Your task to perform on an android device: open app "PlayWell" (install if not already installed) Image 0: 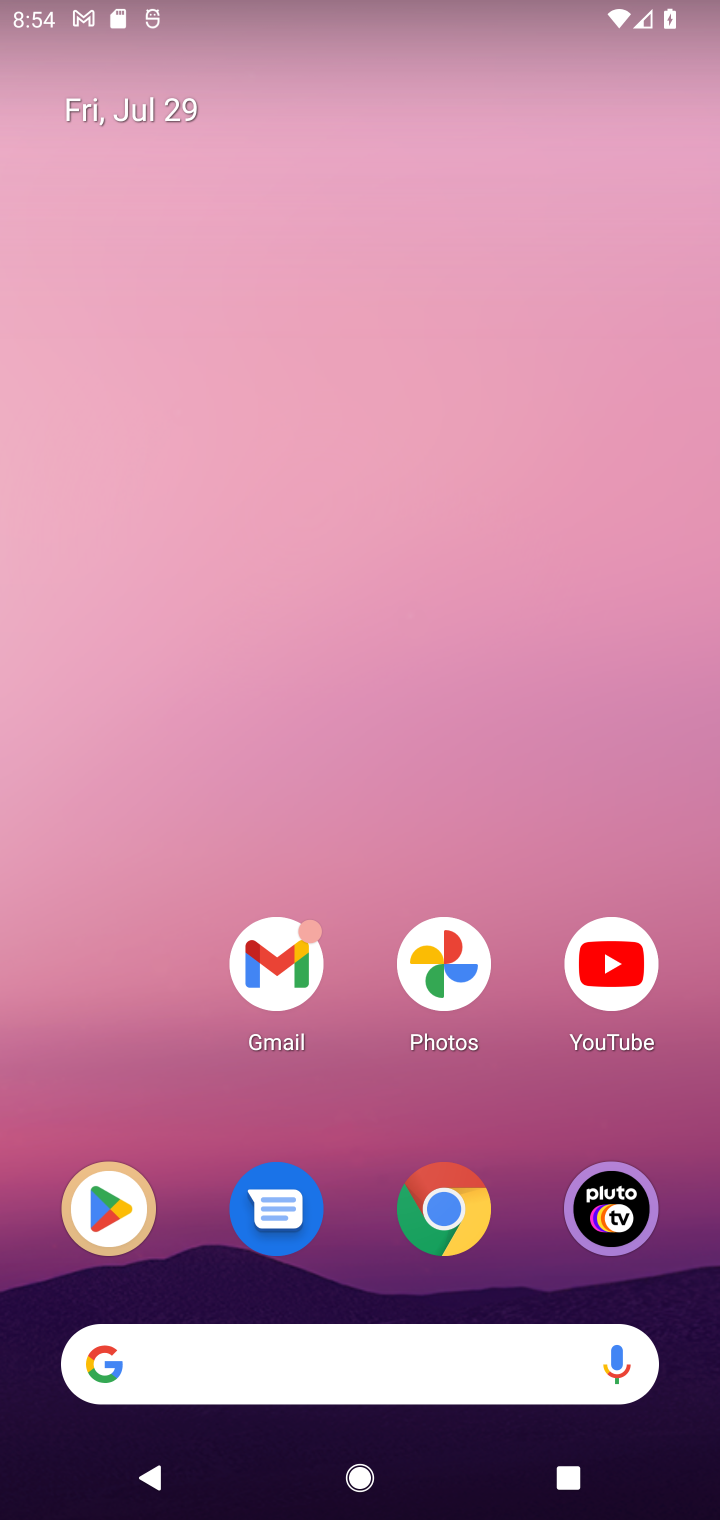
Step 0: press home button
Your task to perform on an android device: open app "PlayWell" (install if not already installed) Image 1: 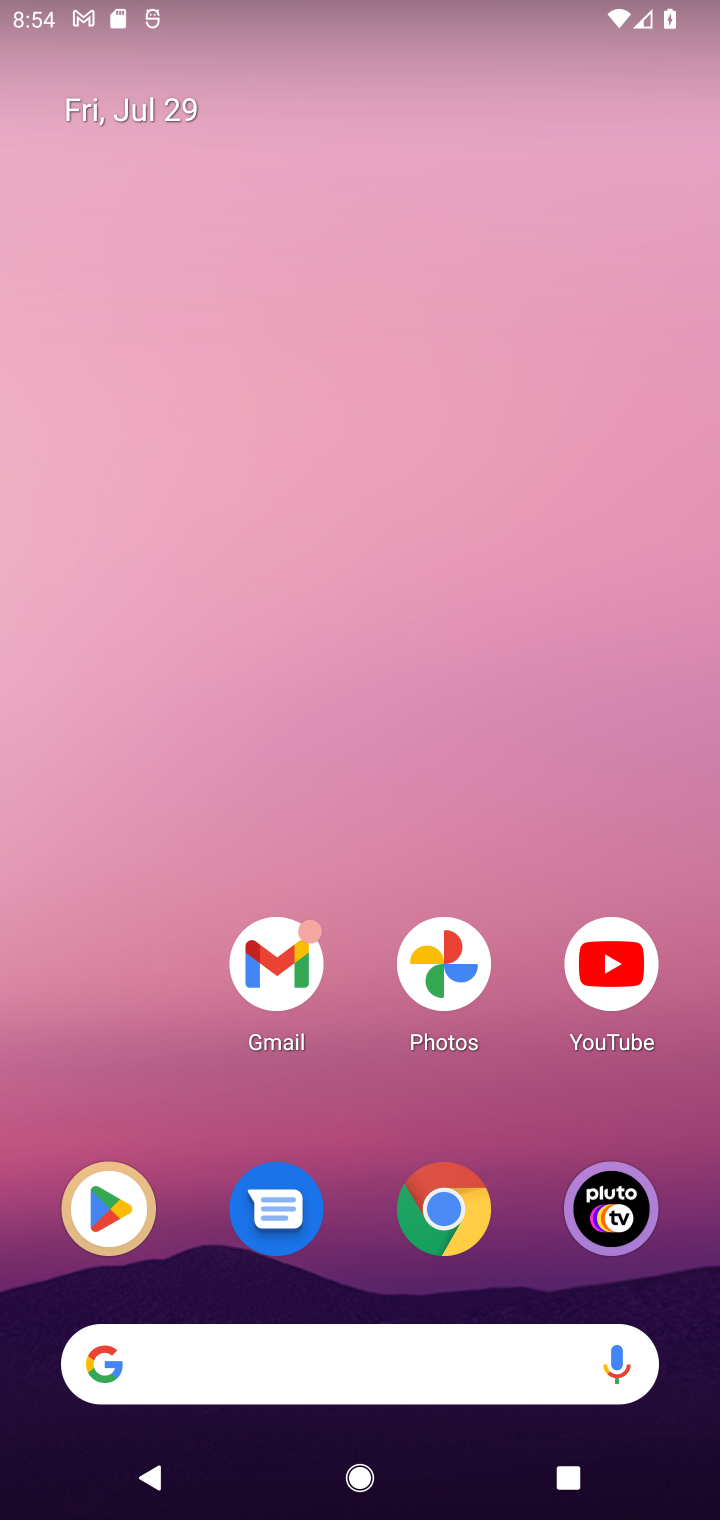
Step 1: drag from (255, 1370) to (359, 72)
Your task to perform on an android device: open app "PlayWell" (install if not already installed) Image 2: 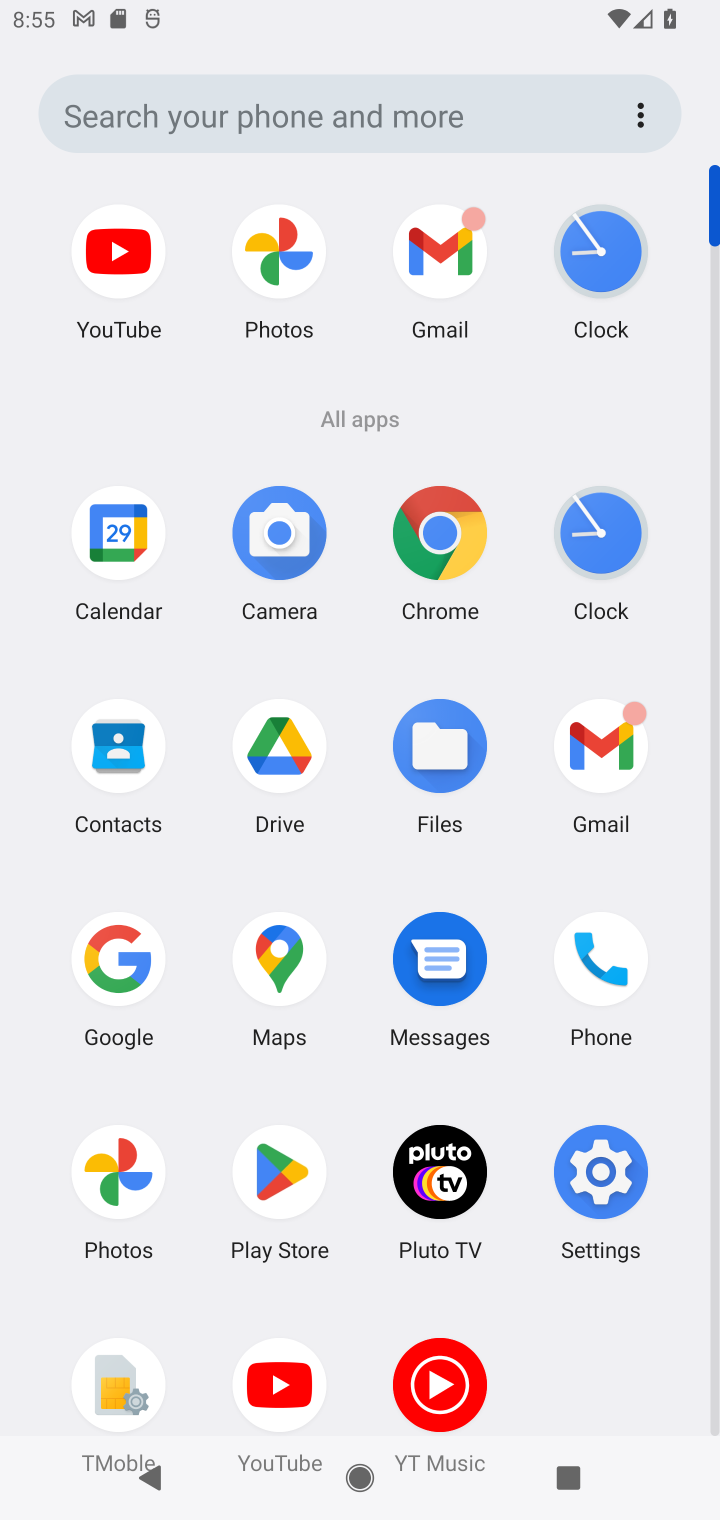
Step 2: click (286, 1174)
Your task to perform on an android device: open app "PlayWell" (install if not already installed) Image 3: 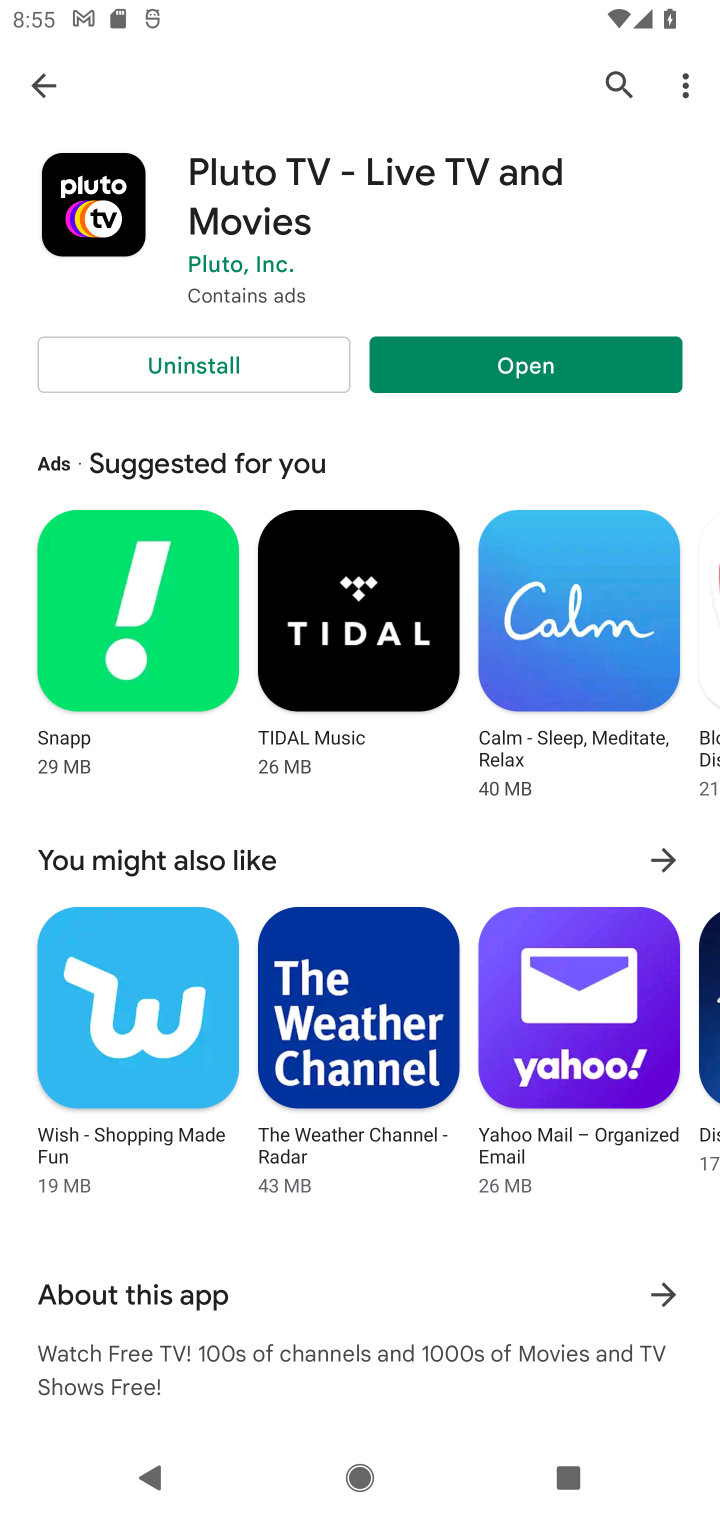
Step 3: click (617, 83)
Your task to perform on an android device: open app "PlayWell" (install if not already installed) Image 4: 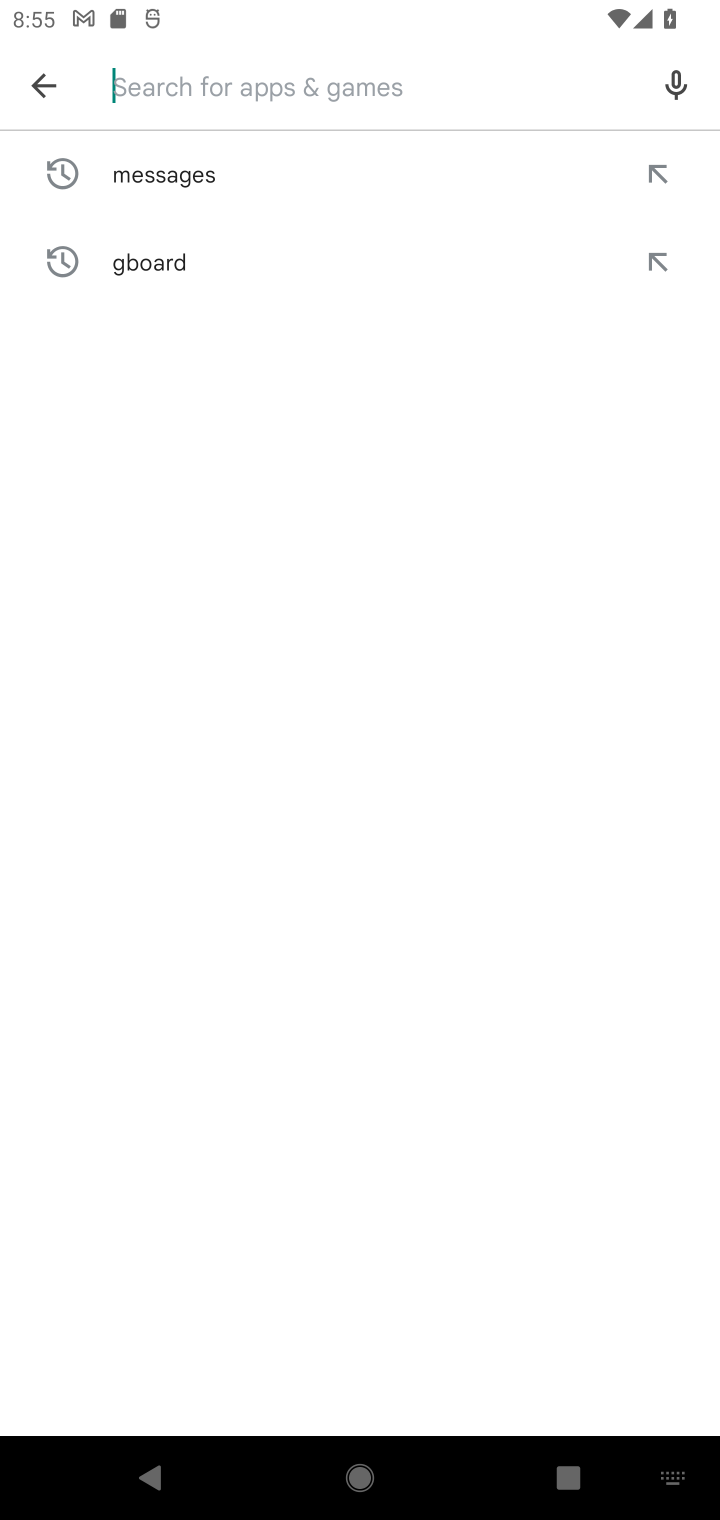
Step 4: type "PlayWell"
Your task to perform on an android device: open app "PlayWell" (install if not already installed) Image 5: 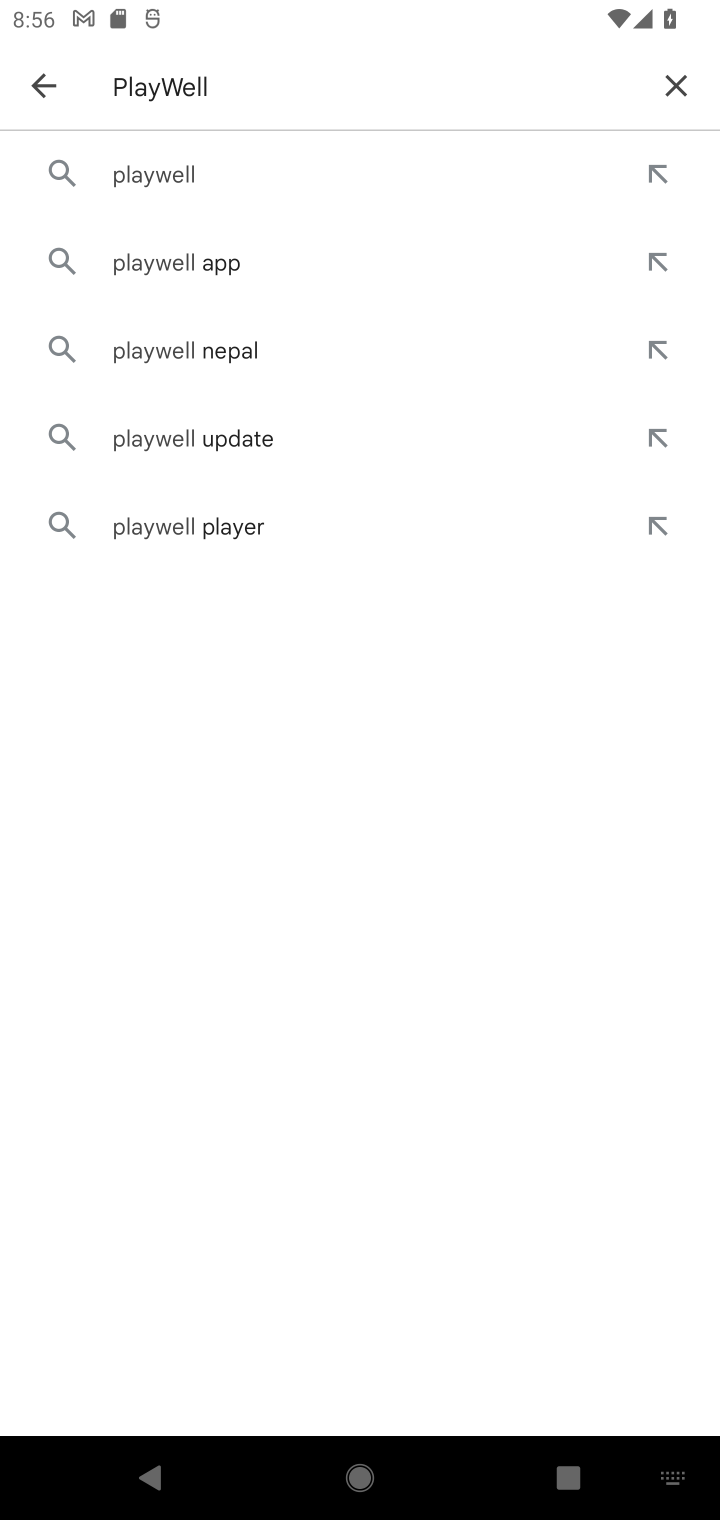
Step 5: click (167, 178)
Your task to perform on an android device: open app "PlayWell" (install if not already installed) Image 6: 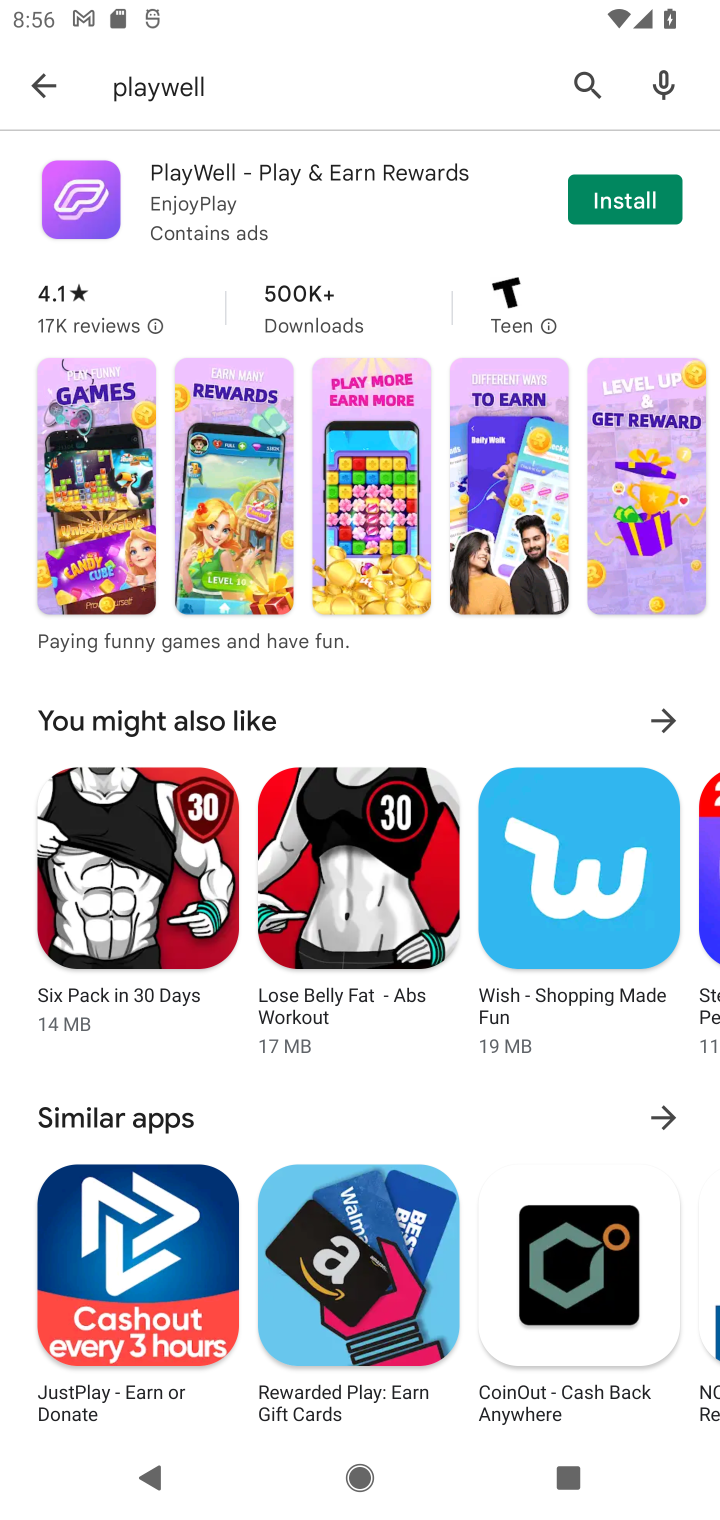
Step 6: click (627, 203)
Your task to perform on an android device: open app "PlayWell" (install if not already installed) Image 7: 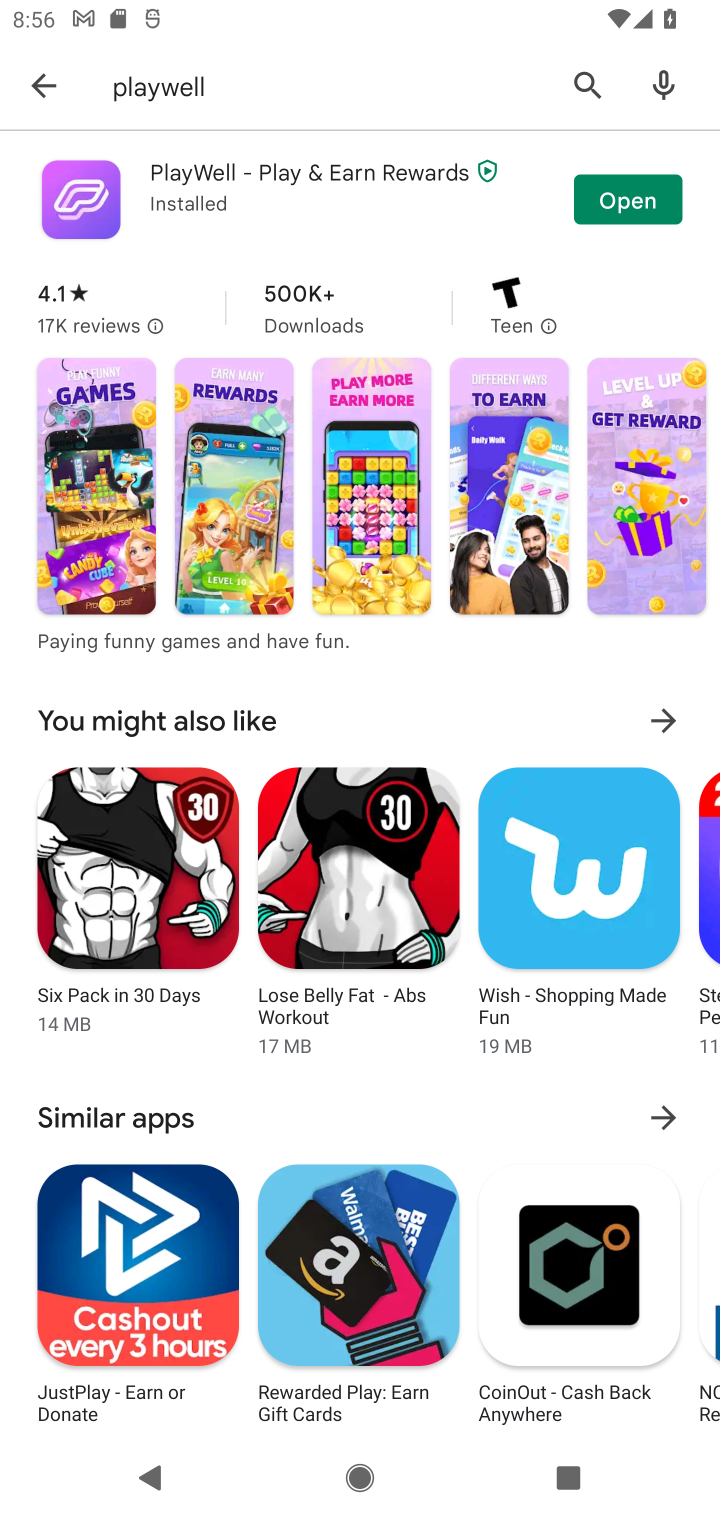
Step 7: click (635, 206)
Your task to perform on an android device: open app "PlayWell" (install if not already installed) Image 8: 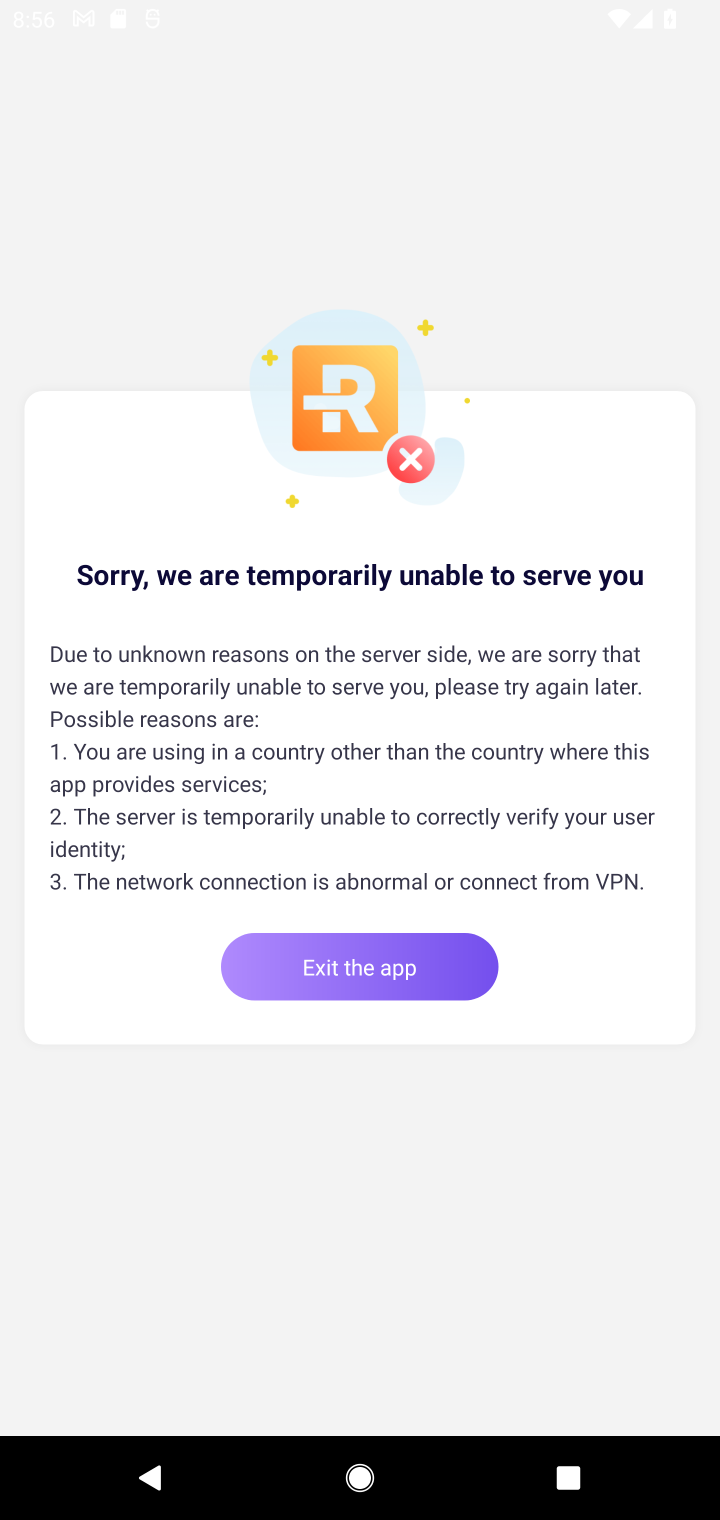
Step 8: task complete